Your task to perform on an android device: Open Android settings Image 0: 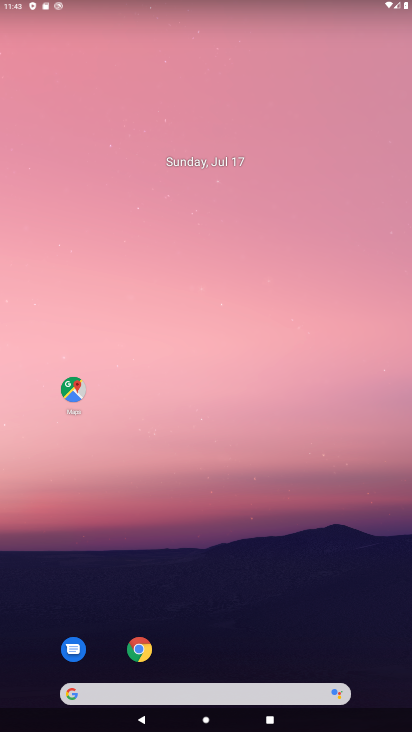
Step 0: drag from (3, 705) to (310, 55)
Your task to perform on an android device: Open Android settings Image 1: 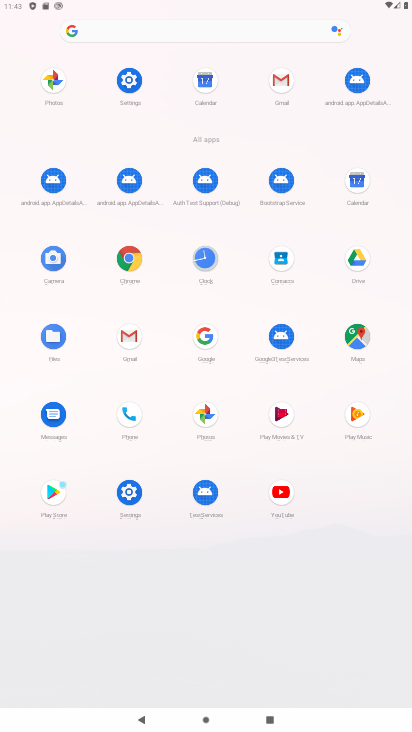
Step 1: click (127, 491)
Your task to perform on an android device: Open Android settings Image 2: 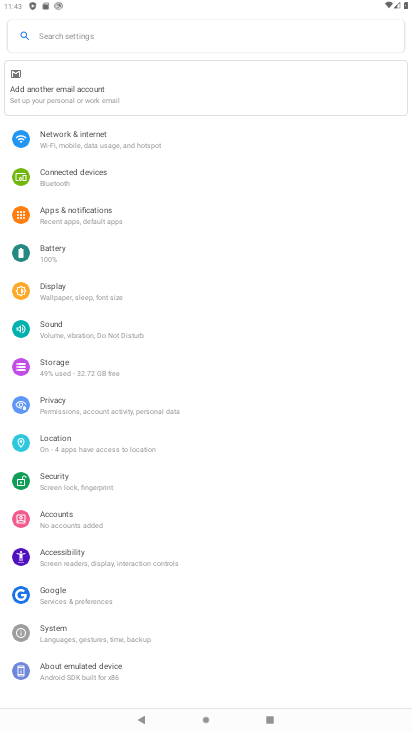
Step 2: click (78, 668)
Your task to perform on an android device: Open Android settings Image 3: 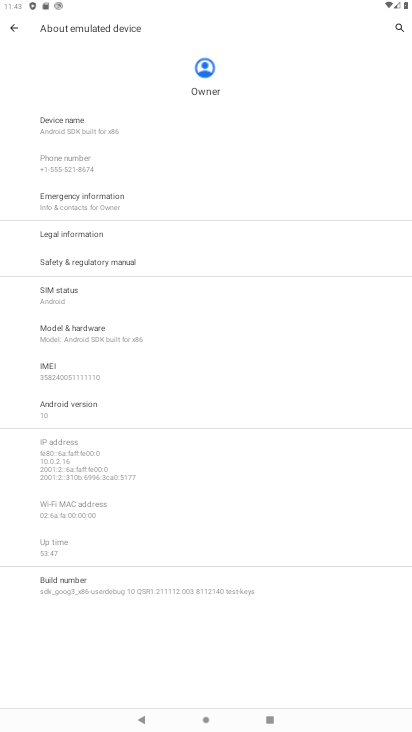
Step 3: click (78, 410)
Your task to perform on an android device: Open Android settings Image 4: 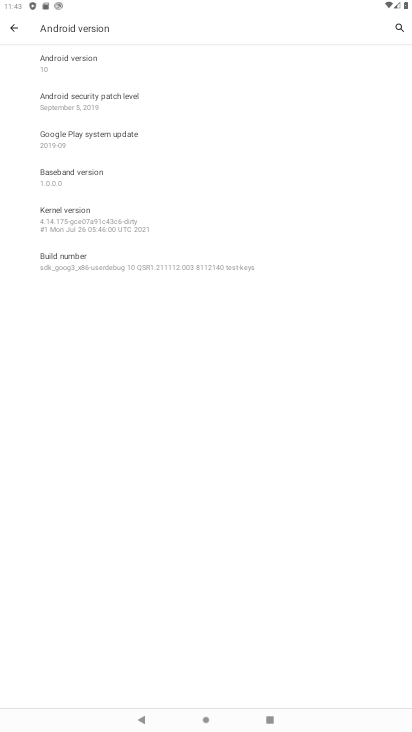
Step 4: task complete